Your task to perform on an android device: open a new tab in the chrome app Image 0: 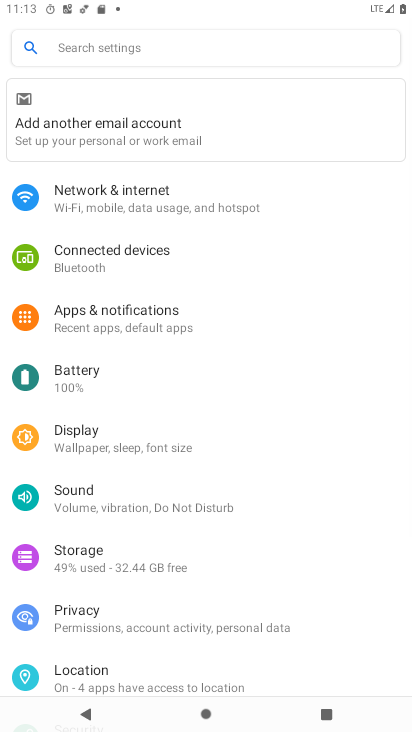
Step 0: press home button
Your task to perform on an android device: open a new tab in the chrome app Image 1: 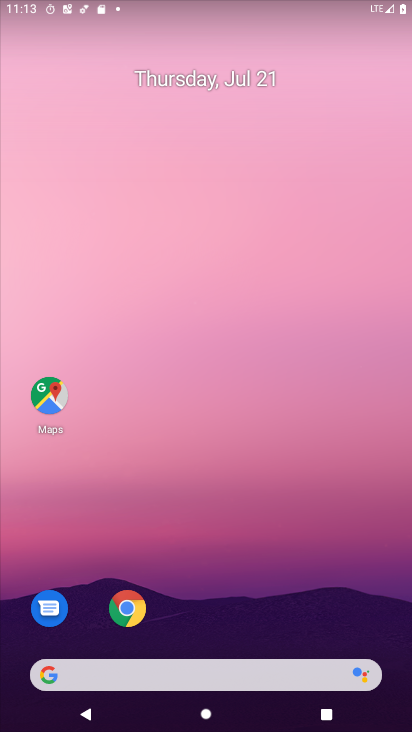
Step 1: drag from (201, 581) to (218, 244)
Your task to perform on an android device: open a new tab in the chrome app Image 2: 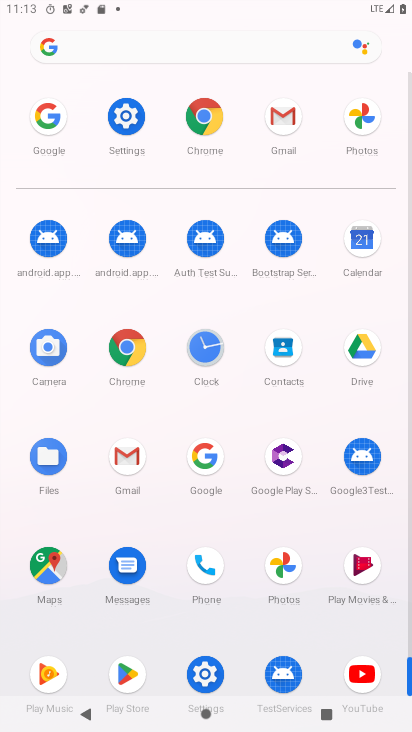
Step 2: click (208, 151)
Your task to perform on an android device: open a new tab in the chrome app Image 3: 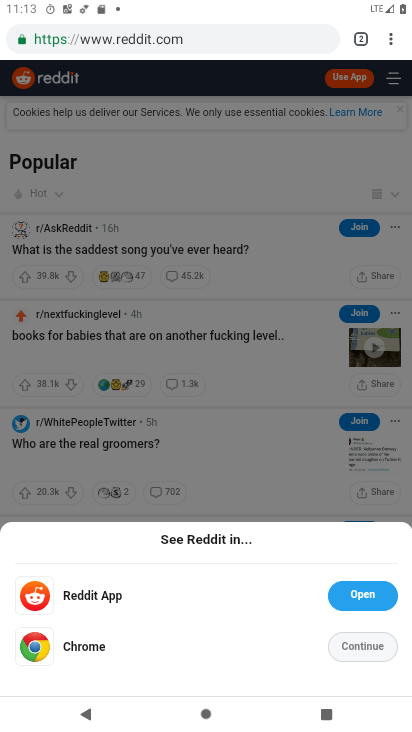
Step 3: drag from (362, 38) to (317, 276)
Your task to perform on an android device: open a new tab in the chrome app Image 4: 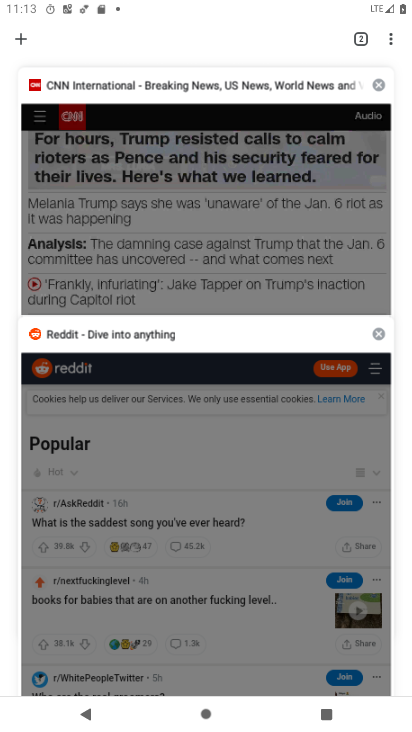
Step 4: click (17, 36)
Your task to perform on an android device: open a new tab in the chrome app Image 5: 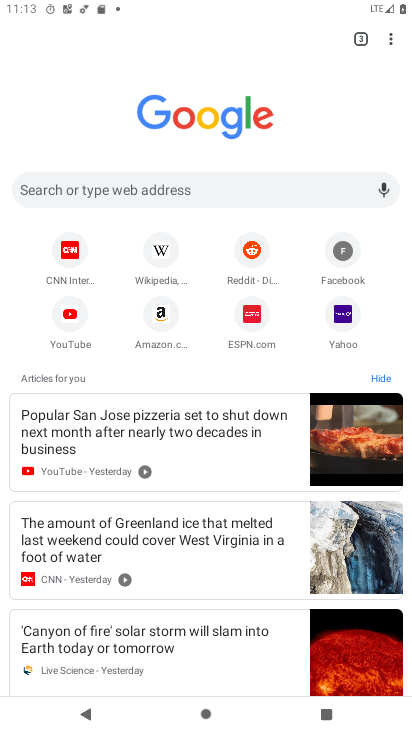
Step 5: task complete